Your task to perform on an android device: turn on the 24-hour format for clock Image 0: 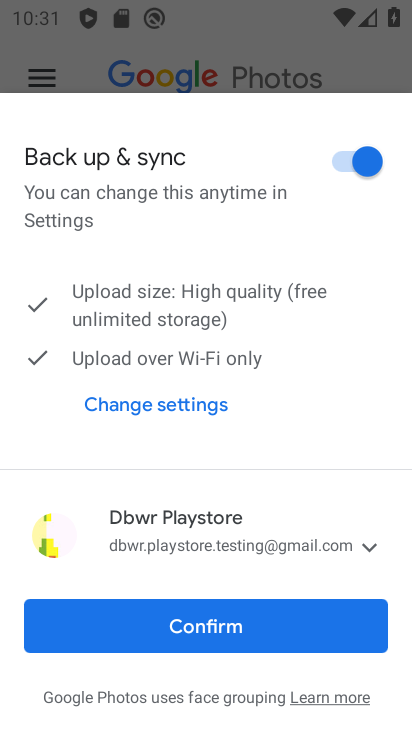
Step 0: press home button
Your task to perform on an android device: turn on the 24-hour format for clock Image 1: 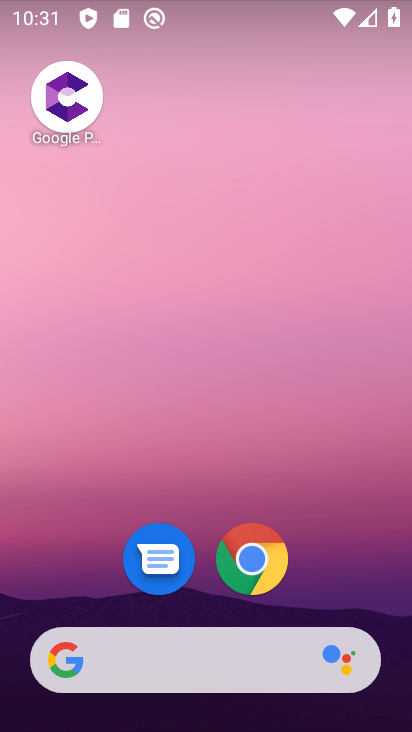
Step 1: drag from (304, 570) to (316, 228)
Your task to perform on an android device: turn on the 24-hour format for clock Image 2: 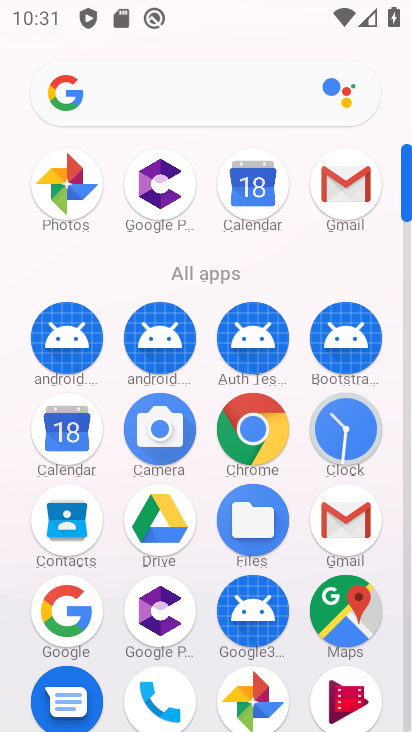
Step 2: click (334, 458)
Your task to perform on an android device: turn on the 24-hour format for clock Image 3: 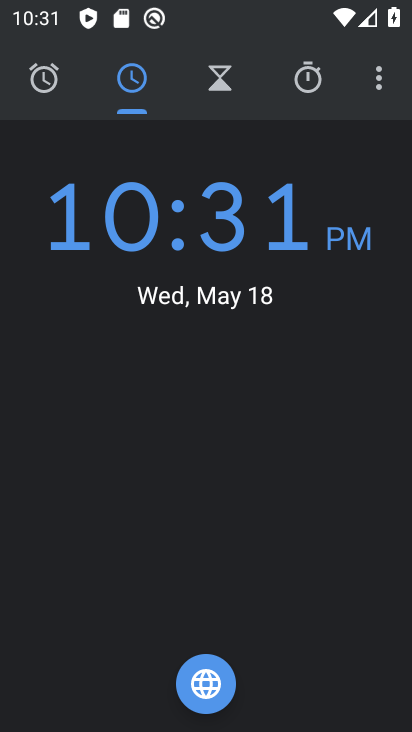
Step 3: click (380, 80)
Your task to perform on an android device: turn on the 24-hour format for clock Image 4: 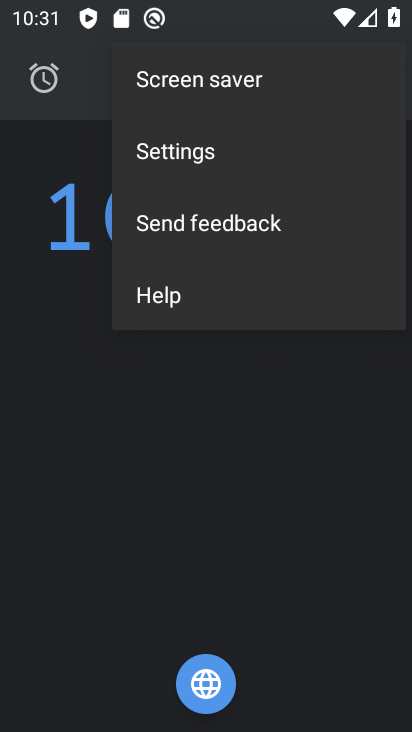
Step 4: click (219, 158)
Your task to perform on an android device: turn on the 24-hour format for clock Image 5: 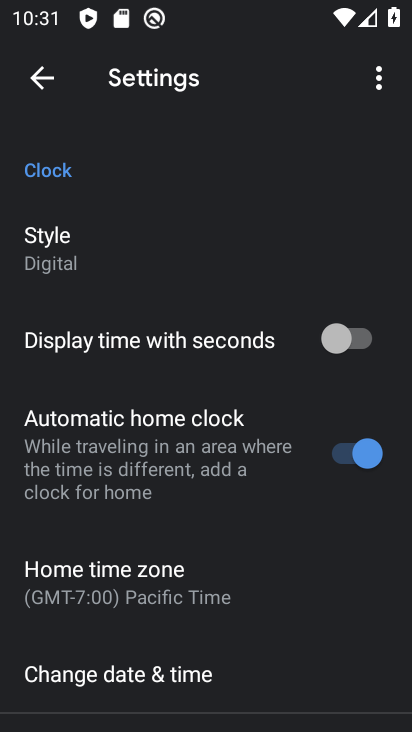
Step 5: drag from (190, 647) to (190, 214)
Your task to perform on an android device: turn on the 24-hour format for clock Image 6: 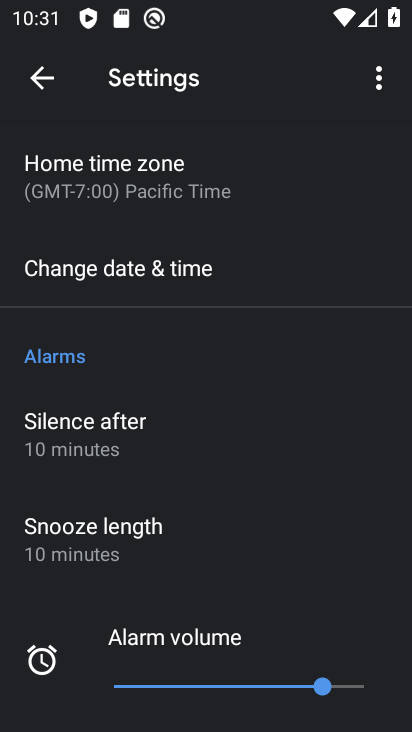
Step 6: click (168, 284)
Your task to perform on an android device: turn on the 24-hour format for clock Image 7: 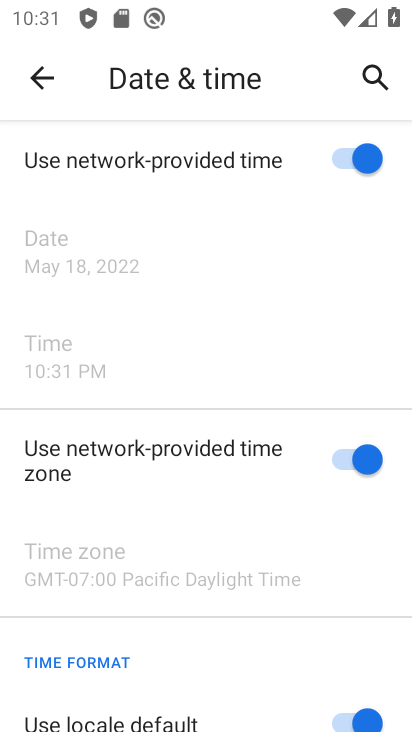
Step 7: drag from (173, 550) to (243, 149)
Your task to perform on an android device: turn on the 24-hour format for clock Image 8: 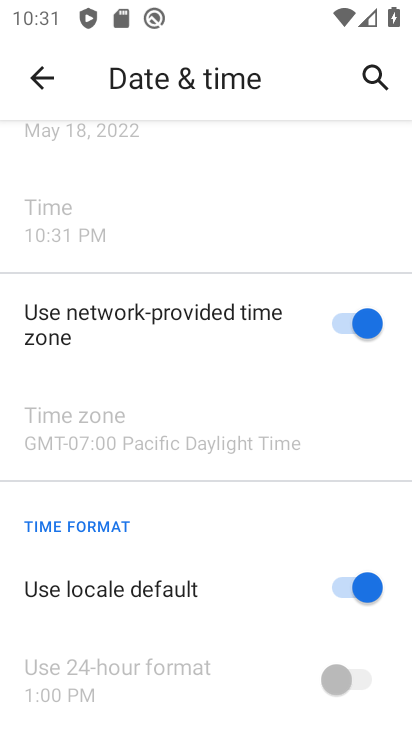
Step 8: drag from (212, 656) to (244, 204)
Your task to perform on an android device: turn on the 24-hour format for clock Image 9: 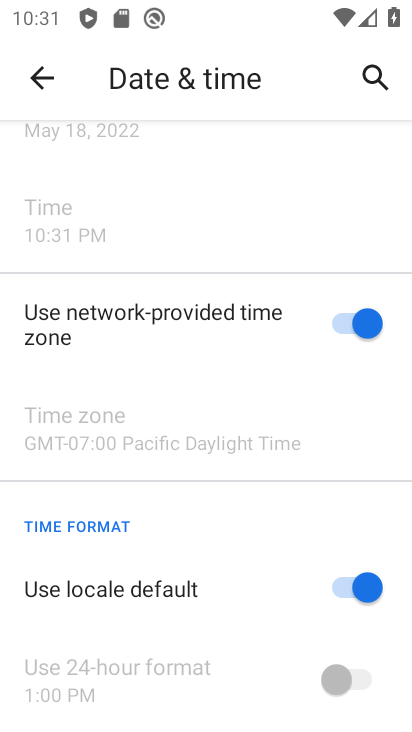
Step 9: click (156, 680)
Your task to perform on an android device: turn on the 24-hour format for clock Image 10: 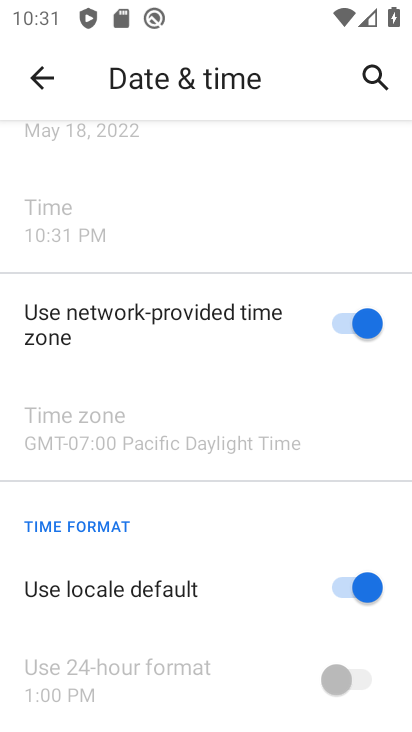
Step 10: click (342, 588)
Your task to perform on an android device: turn on the 24-hour format for clock Image 11: 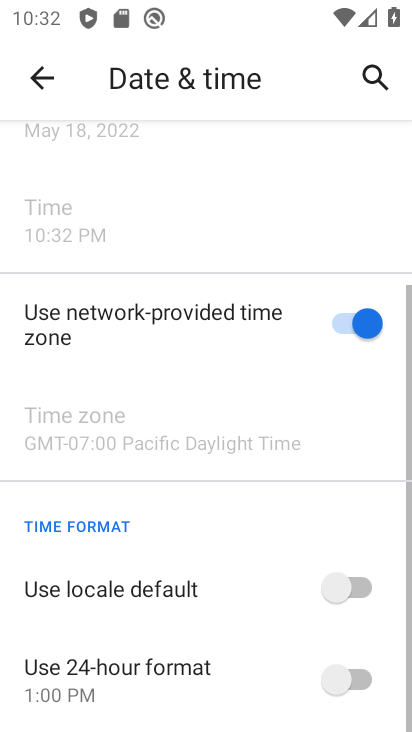
Step 11: click (372, 685)
Your task to perform on an android device: turn on the 24-hour format for clock Image 12: 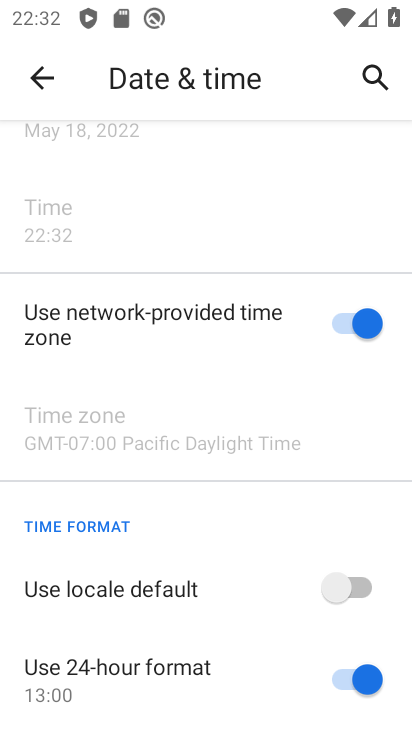
Step 12: task complete